Your task to perform on an android device: change text size in settings app Image 0: 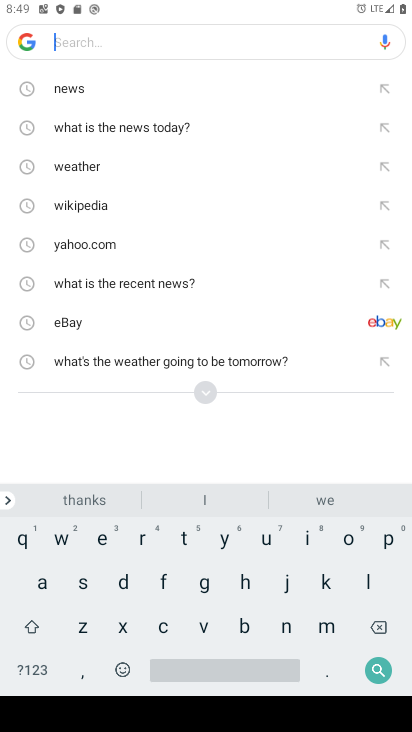
Step 0: press home button
Your task to perform on an android device: change text size in settings app Image 1: 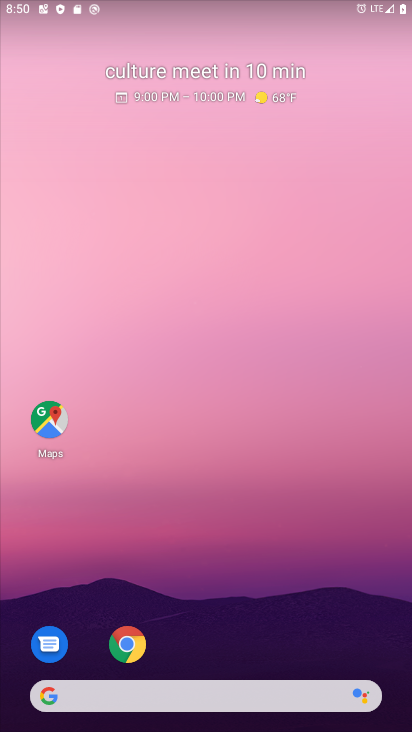
Step 1: drag from (232, 706) to (209, 216)
Your task to perform on an android device: change text size in settings app Image 2: 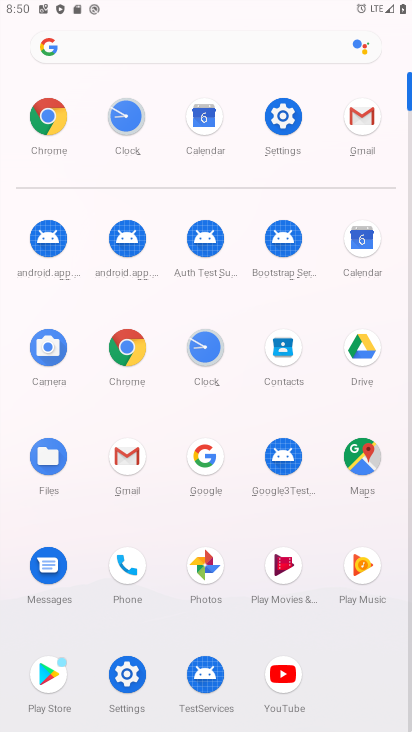
Step 2: click (266, 130)
Your task to perform on an android device: change text size in settings app Image 3: 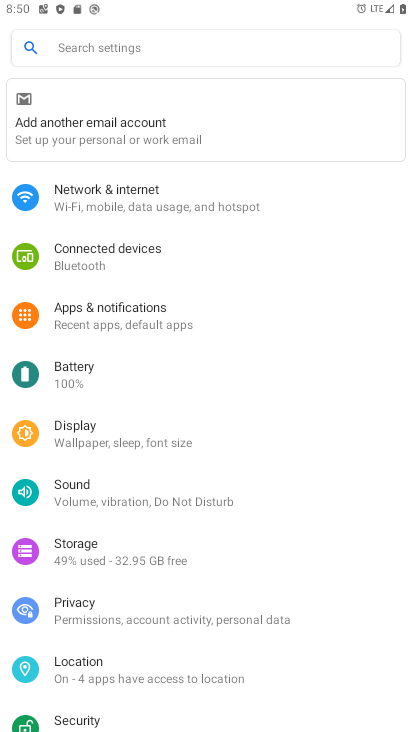
Step 3: click (118, 51)
Your task to perform on an android device: change text size in settings app Image 4: 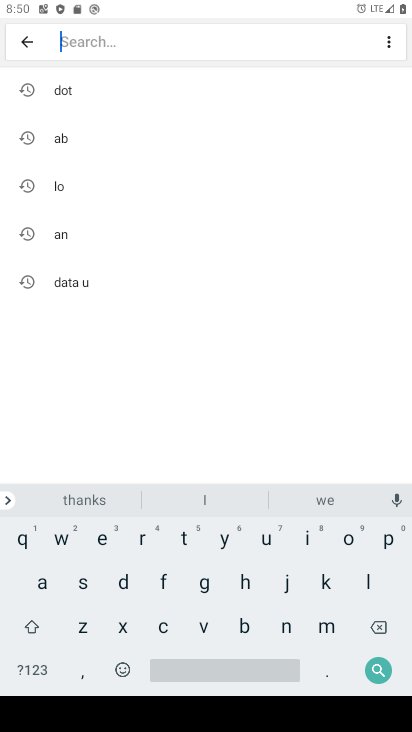
Step 4: click (74, 584)
Your task to perform on an android device: change text size in settings app Image 5: 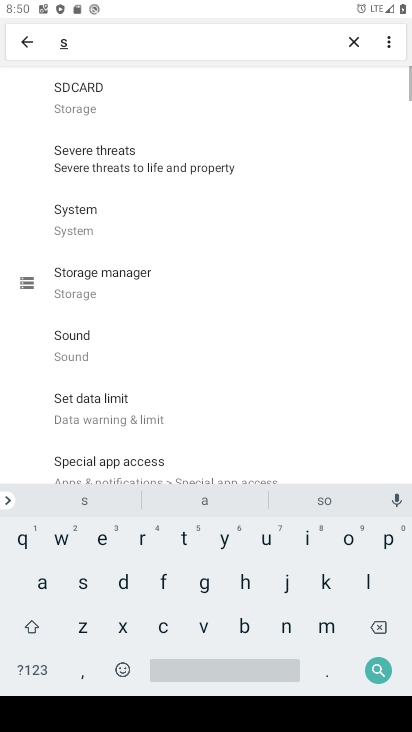
Step 5: click (300, 538)
Your task to perform on an android device: change text size in settings app Image 6: 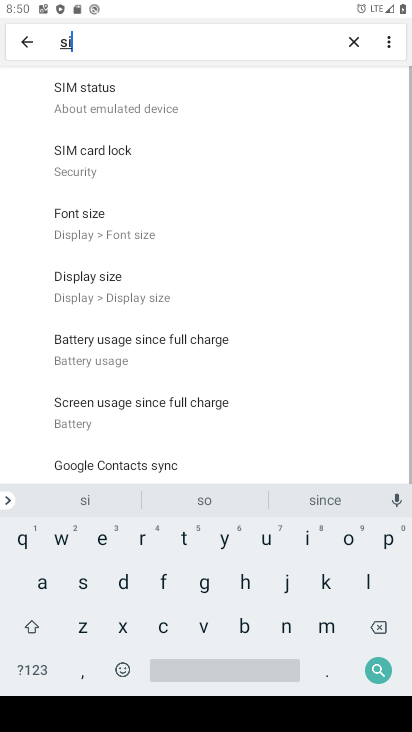
Step 6: click (81, 629)
Your task to perform on an android device: change text size in settings app Image 7: 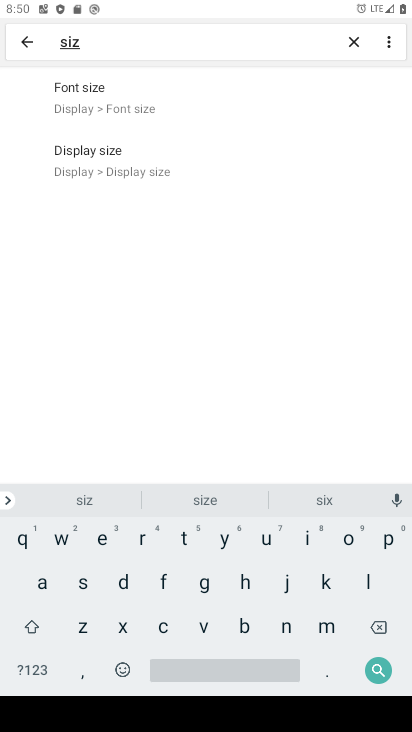
Step 7: click (129, 102)
Your task to perform on an android device: change text size in settings app Image 8: 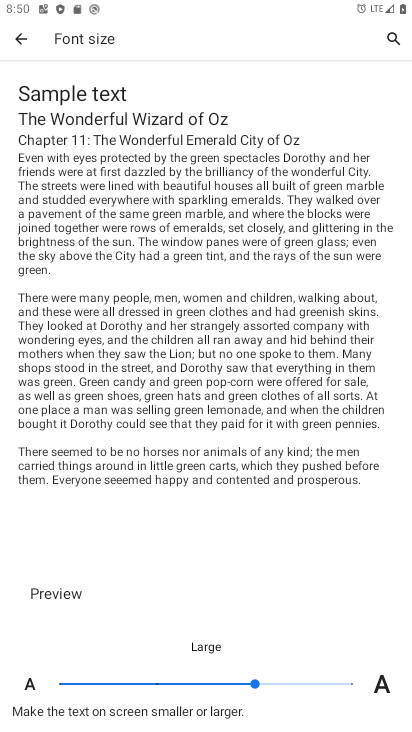
Step 8: click (149, 684)
Your task to perform on an android device: change text size in settings app Image 9: 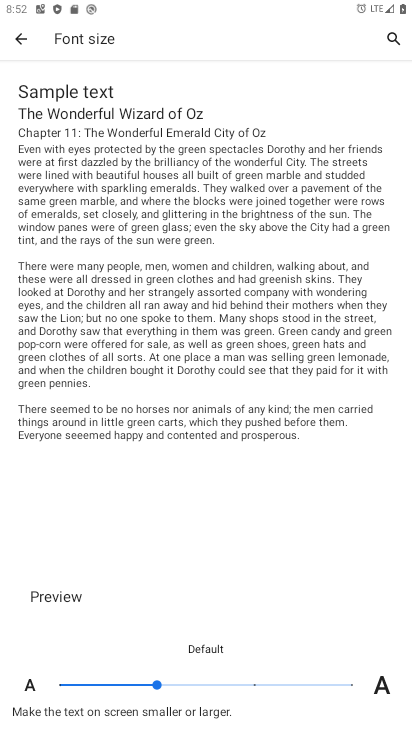
Step 9: task complete